Your task to perform on an android device: turn on data saver in the chrome app Image 0: 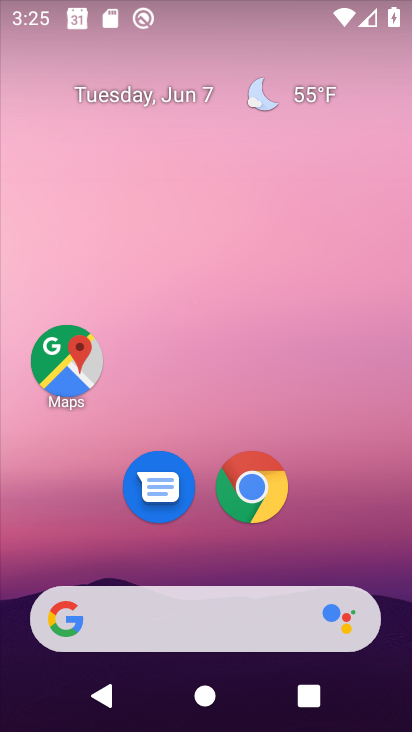
Step 0: drag from (211, 557) to (182, 131)
Your task to perform on an android device: turn on data saver in the chrome app Image 1: 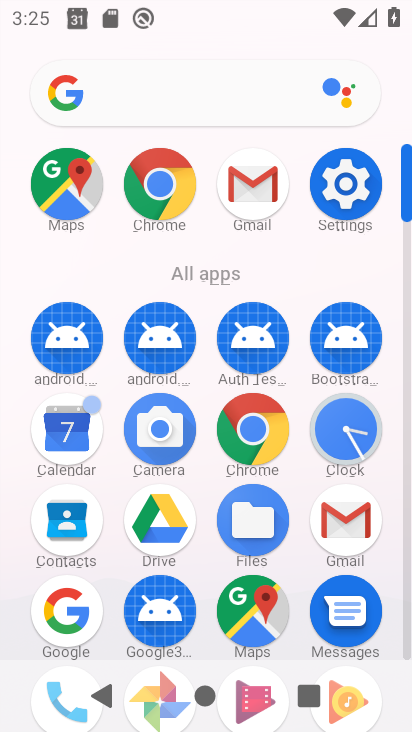
Step 1: click (156, 174)
Your task to perform on an android device: turn on data saver in the chrome app Image 2: 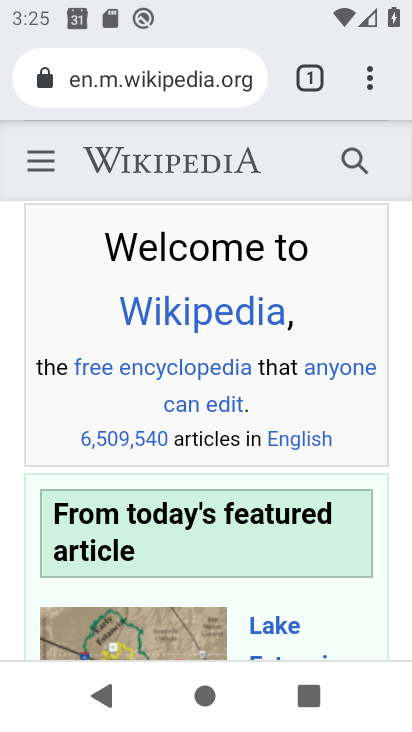
Step 2: click (367, 75)
Your task to perform on an android device: turn on data saver in the chrome app Image 3: 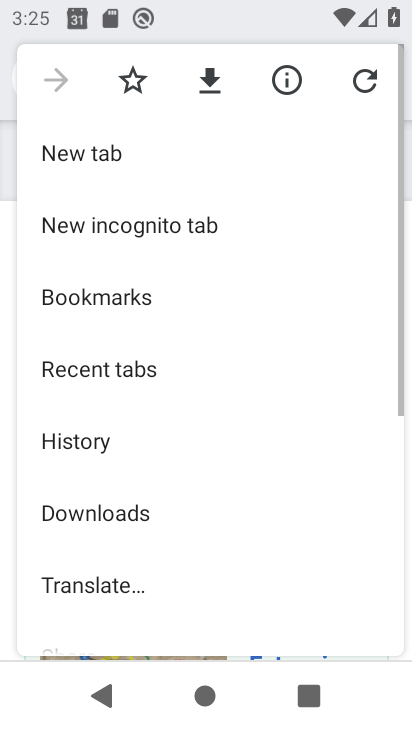
Step 3: drag from (205, 551) to (189, 122)
Your task to perform on an android device: turn on data saver in the chrome app Image 4: 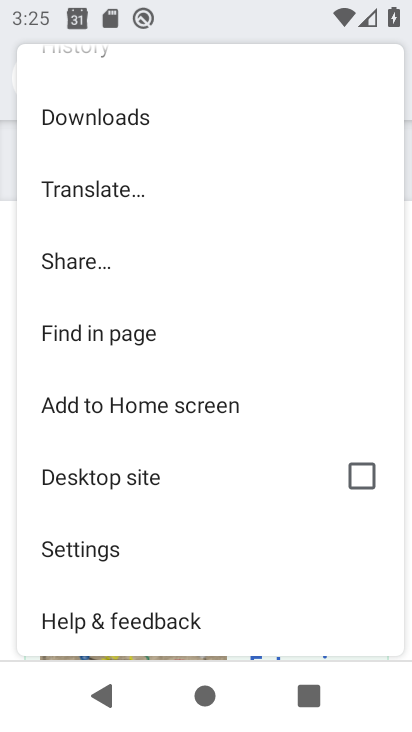
Step 4: click (103, 541)
Your task to perform on an android device: turn on data saver in the chrome app Image 5: 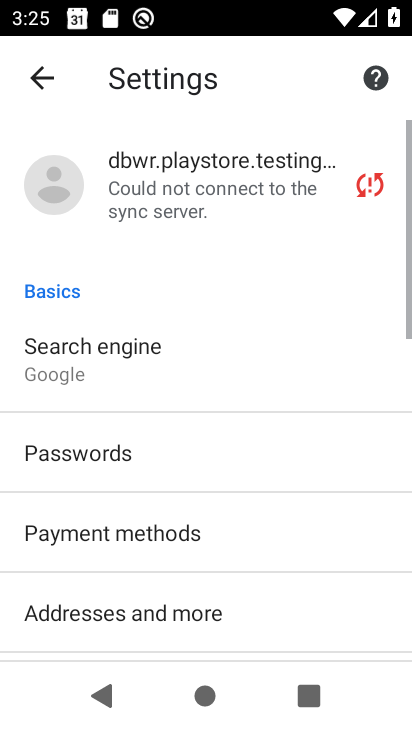
Step 5: drag from (242, 568) to (208, 218)
Your task to perform on an android device: turn on data saver in the chrome app Image 6: 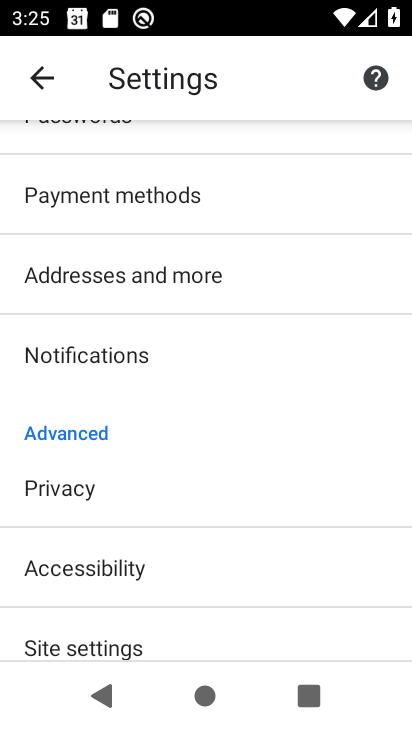
Step 6: drag from (191, 564) to (169, 305)
Your task to perform on an android device: turn on data saver in the chrome app Image 7: 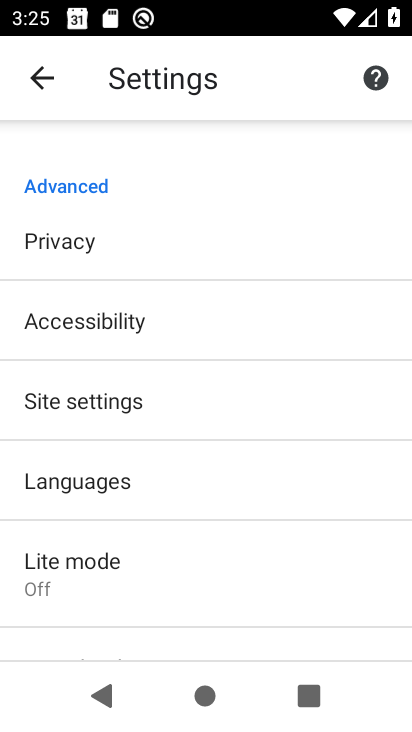
Step 7: click (42, 568)
Your task to perform on an android device: turn on data saver in the chrome app Image 8: 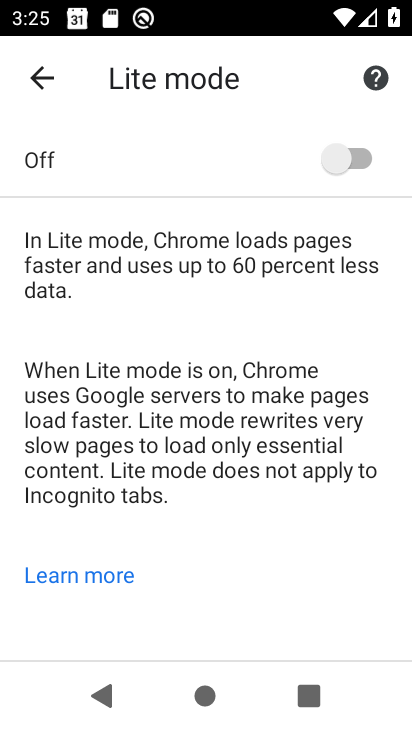
Step 8: click (358, 156)
Your task to perform on an android device: turn on data saver in the chrome app Image 9: 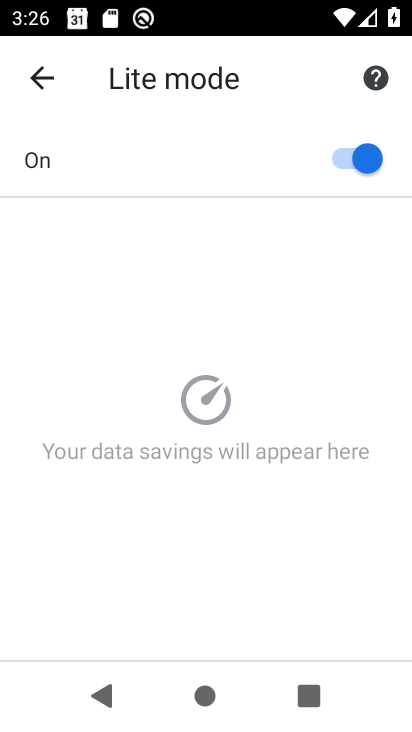
Step 9: task complete